Your task to perform on an android device: Search for Italian restaurants on Maps Image 0: 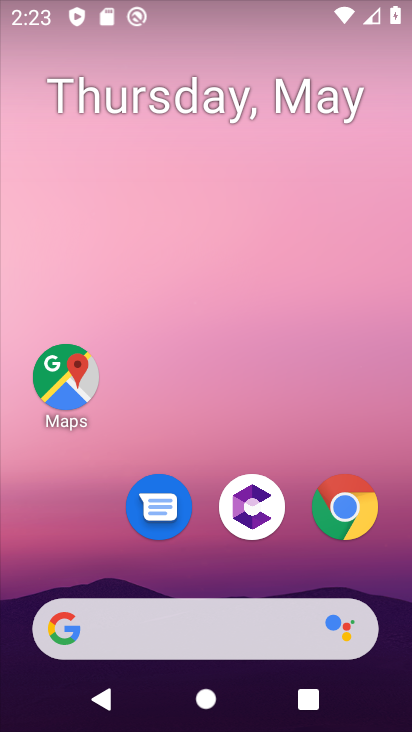
Step 0: press home button
Your task to perform on an android device: Search for Italian restaurants on Maps Image 1: 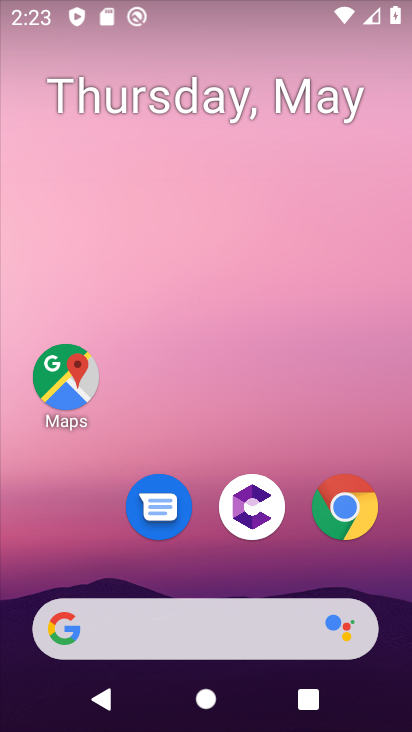
Step 1: click (17, 410)
Your task to perform on an android device: Search for Italian restaurants on Maps Image 2: 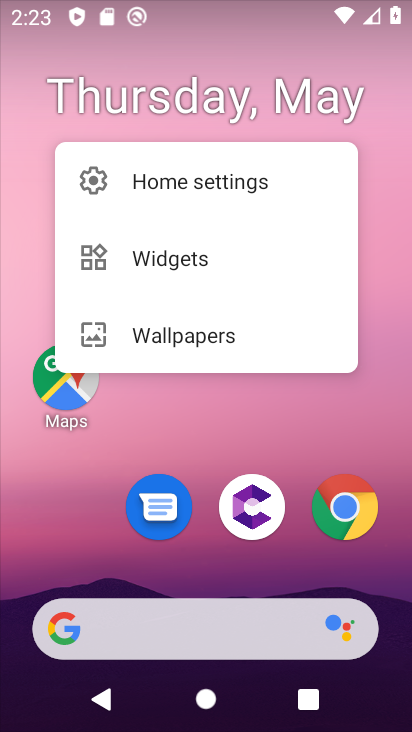
Step 2: click (46, 402)
Your task to perform on an android device: Search for Italian restaurants on Maps Image 3: 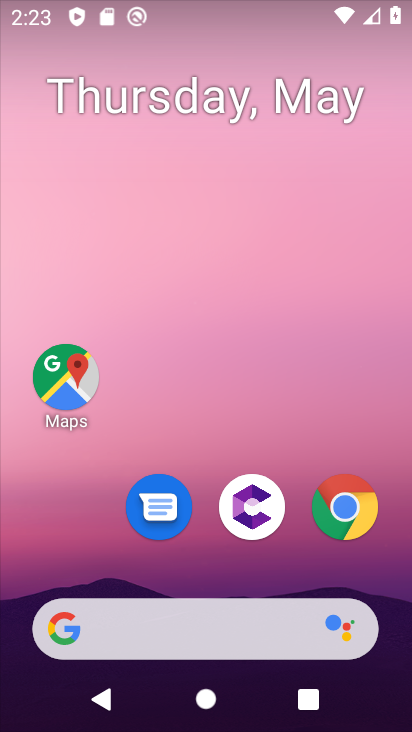
Step 3: click (52, 356)
Your task to perform on an android device: Search for Italian restaurants on Maps Image 4: 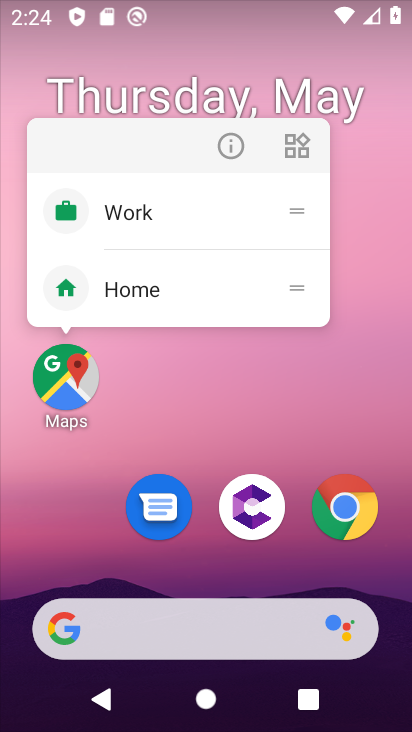
Step 4: click (70, 398)
Your task to perform on an android device: Search for Italian restaurants on Maps Image 5: 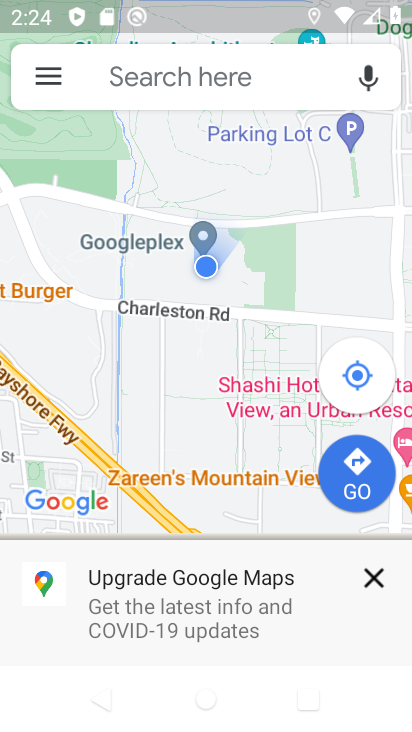
Step 5: click (231, 68)
Your task to perform on an android device: Search for Italian restaurants on Maps Image 6: 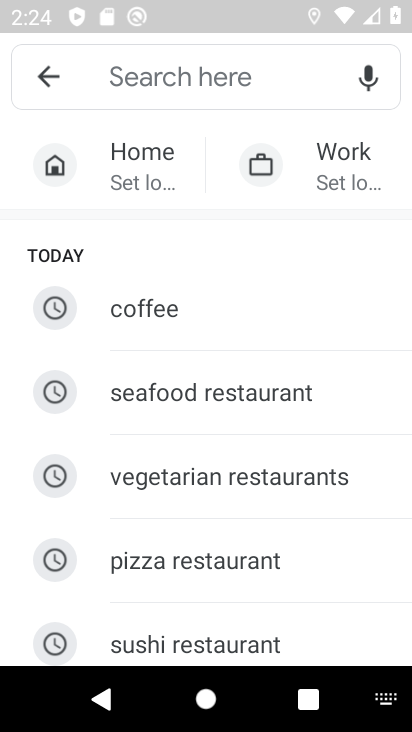
Step 6: type "Italian restaurant"
Your task to perform on an android device: Search for Italian restaurants on Maps Image 7: 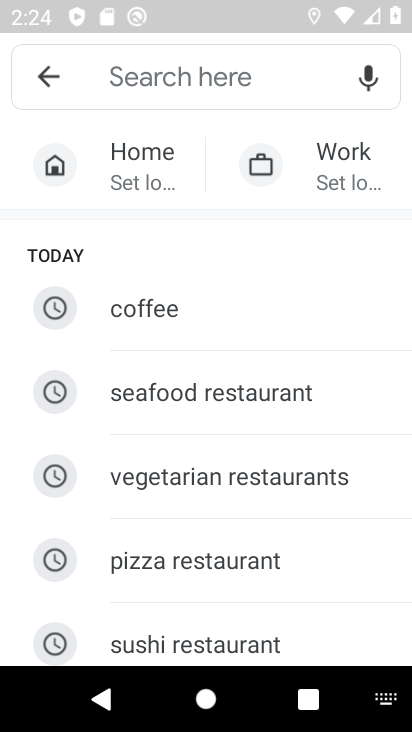
Step 7: click (209, 79)
Your task to perform on an android device: Search for Italian restaurants on Maps Image 8: 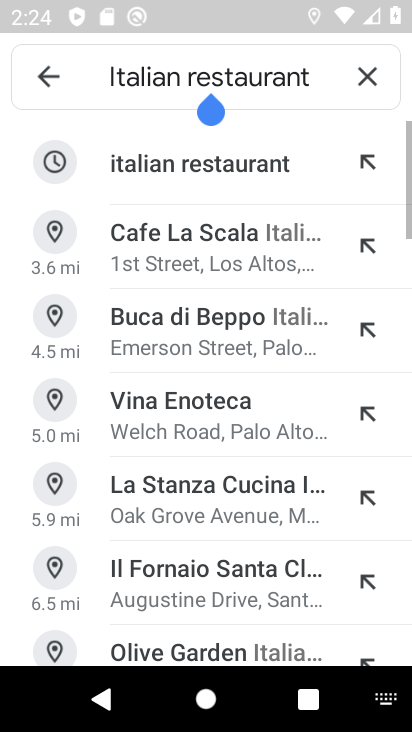
Step 8: click (204, 161)
Your task to perform on an android device: Search for Italian restaurants on Maps Image 9: 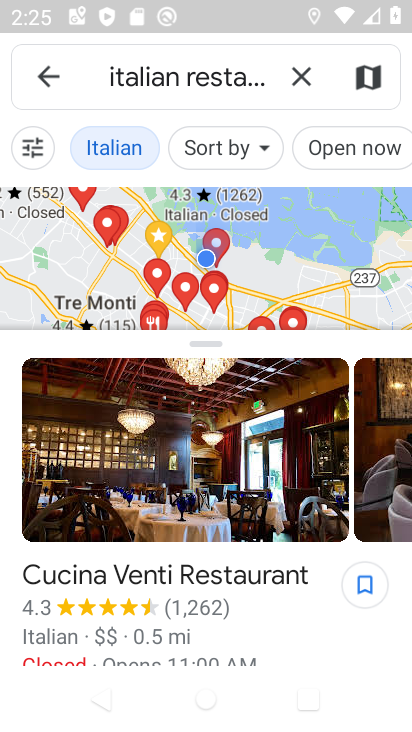
Step 9: task complete